Your task to perform on an android device: What's the news in China? Image 0: 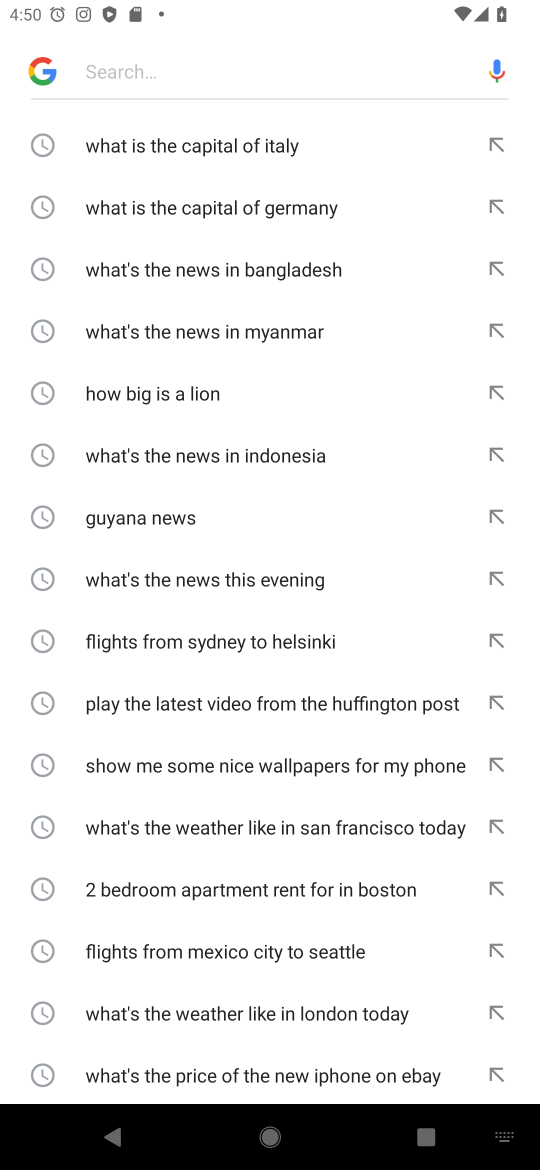
Step 0: press home button
Your task to perform on an android device: What's the news in China? Image 1: 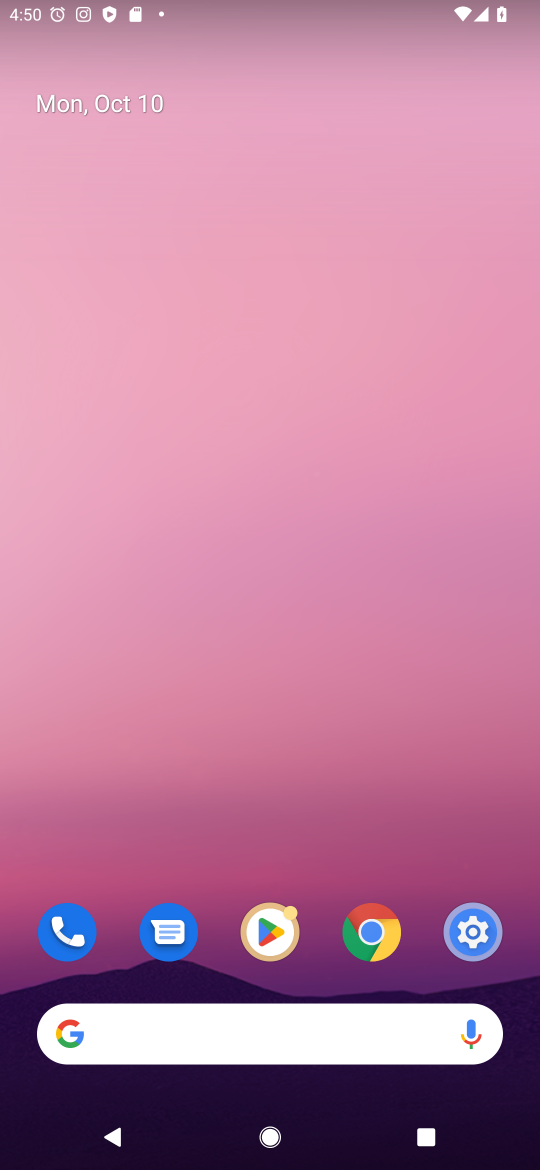
Step 1: click (286, 1025)
Your task to perform on an android device: What's the news in China? Image 2: 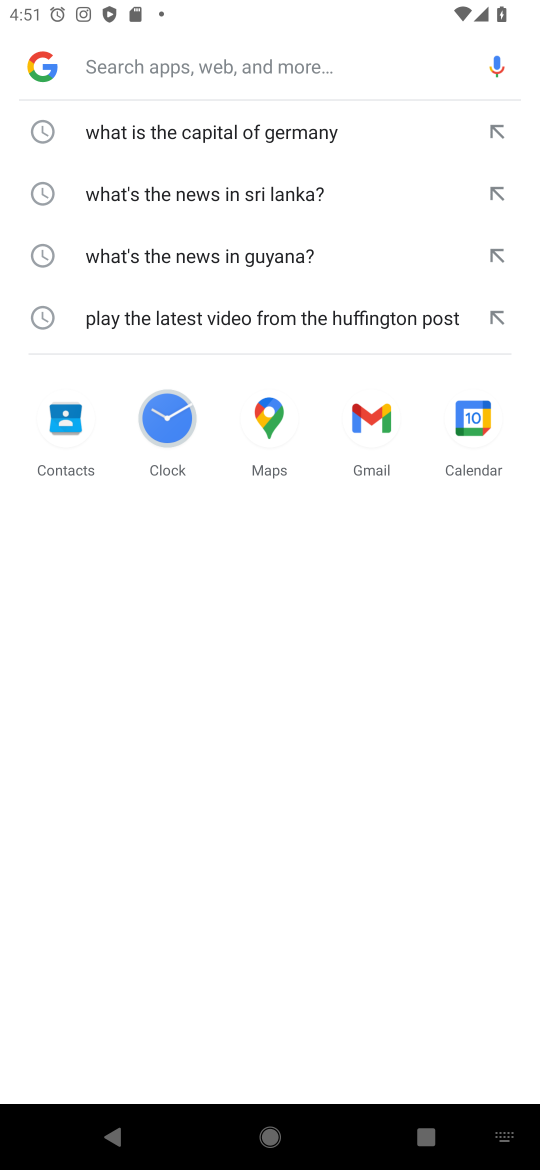
Step 2: type "What's the news in China"
Your task to perform on an android device: What's the news in China? Image 3: 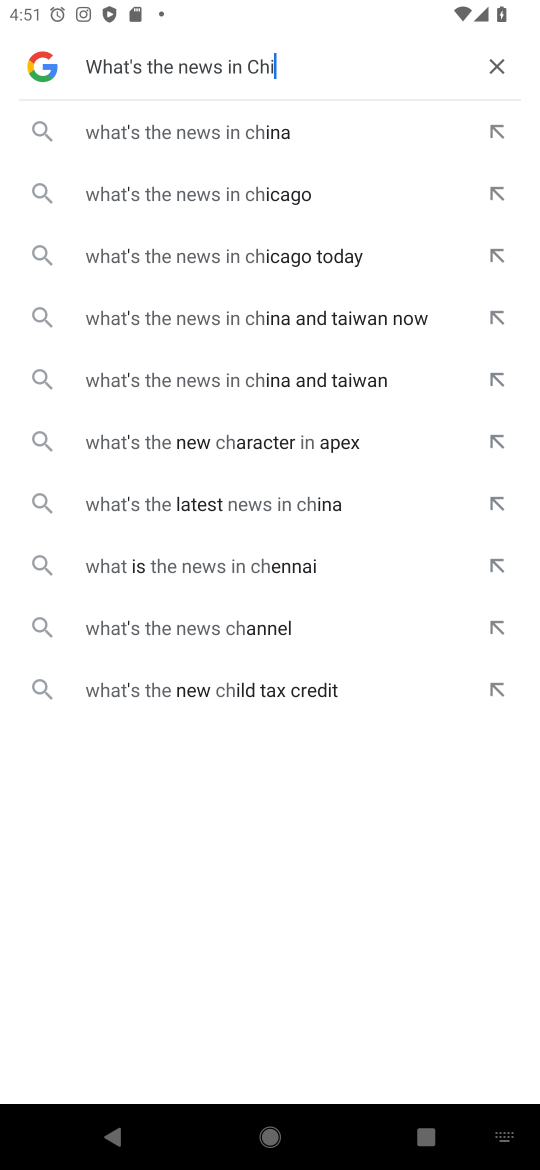
Step 3: press enter
Your task to perform on an android device: What's the news in China? Image 4: 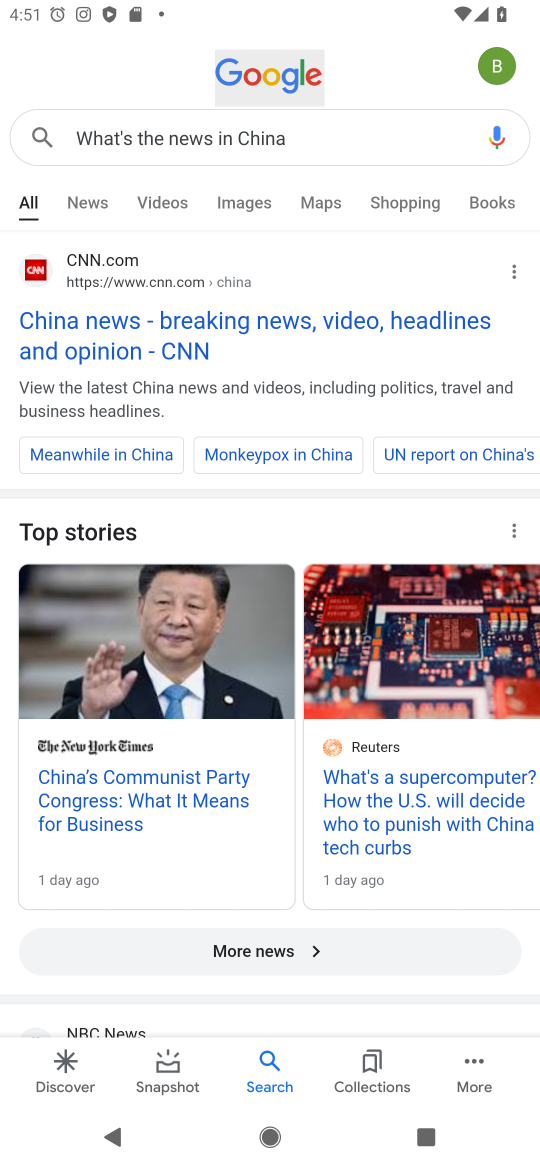
Step 4: click (213, 331)
Your task to perform on an android device: What's the news in China? Image 5: 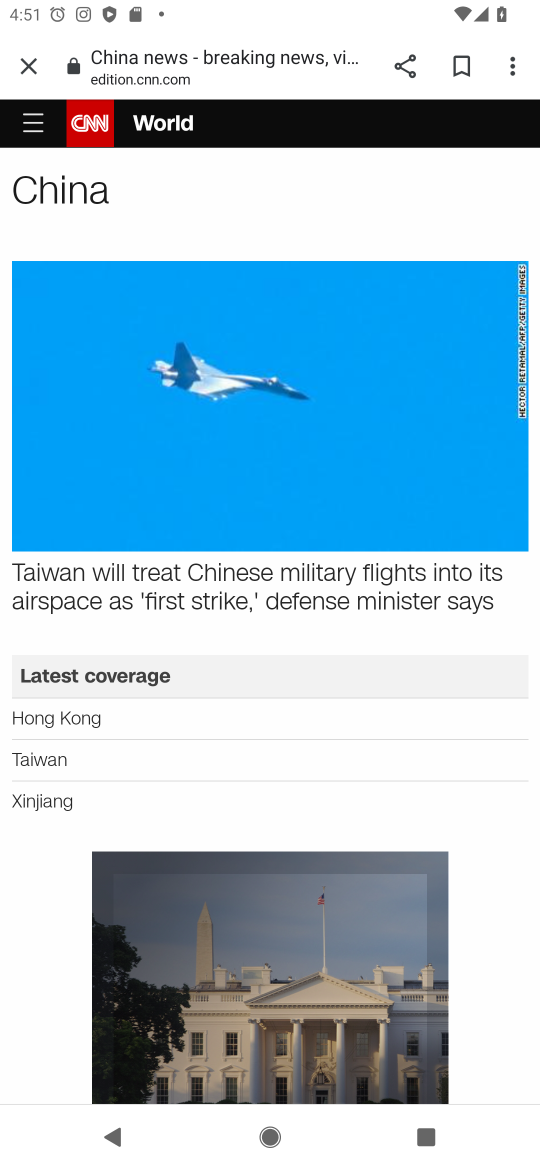
Step 5: task complete